Your task to perform on an android device: Open the phone app and click the voicemail tab. Image 0: 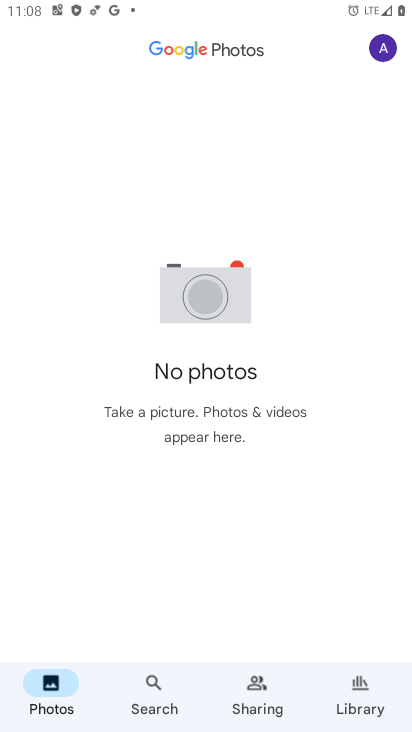
Step 0: press home button
Your task to perform on an android device: Open the phone app and click the voicemail tab. Image 1: 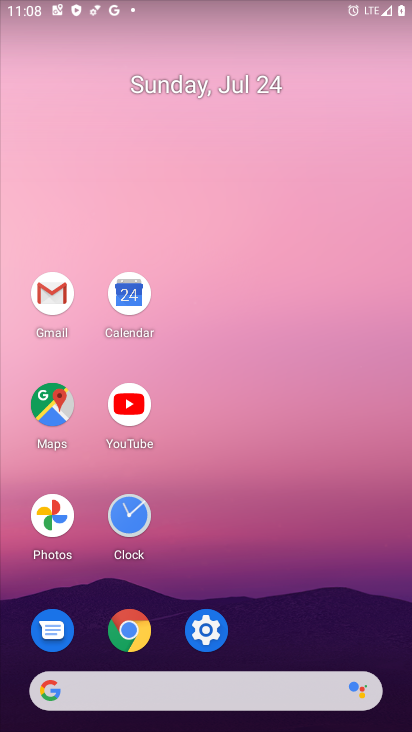
Step 1: drag from (313, 603) to (283, 28)
Your task to perform on an android device: Open the phone app and click the voicemail tab. Image 2: 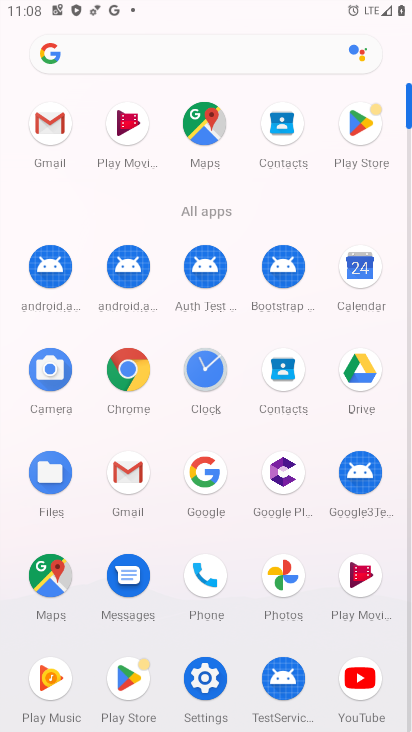
Step 2: click (211, 575)
Your task to perform on an android device: Open the phone app and click the voicemail tab. Image 3: 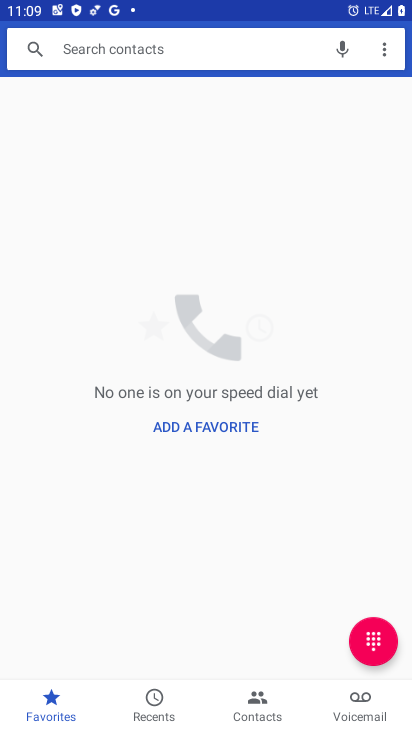
Step 3: click (364, 699)
Your task to perform on an android device: Open the phone app and click the voicemail tab. Image 4: 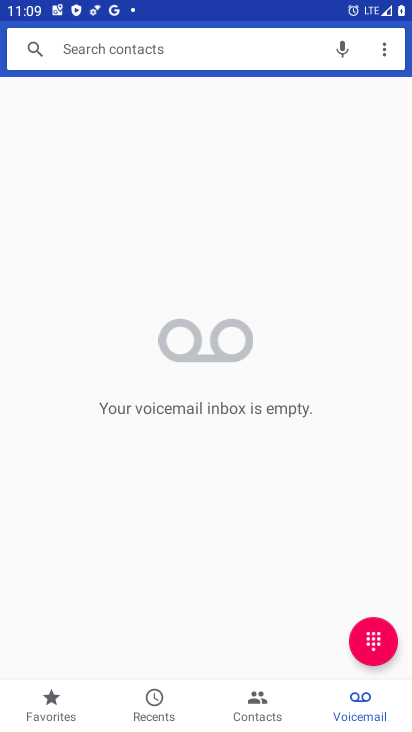
Step 4: task complete